Your task to perform on an android device: open app "Google Chrome" Image 0: 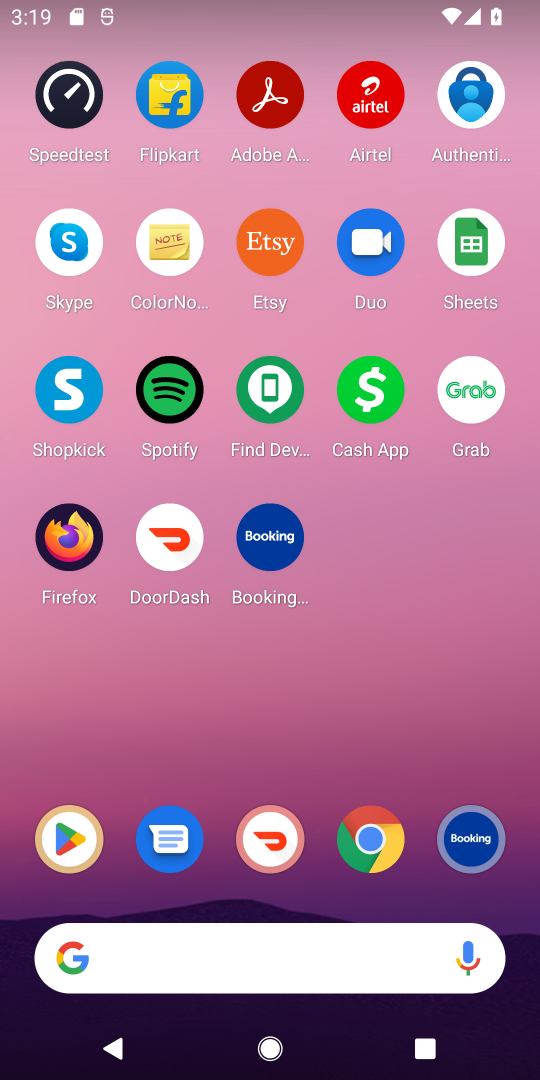
Step 0: click (337, 850)
Your task to perform on an android device: open app "Google Chrome" Image 1: 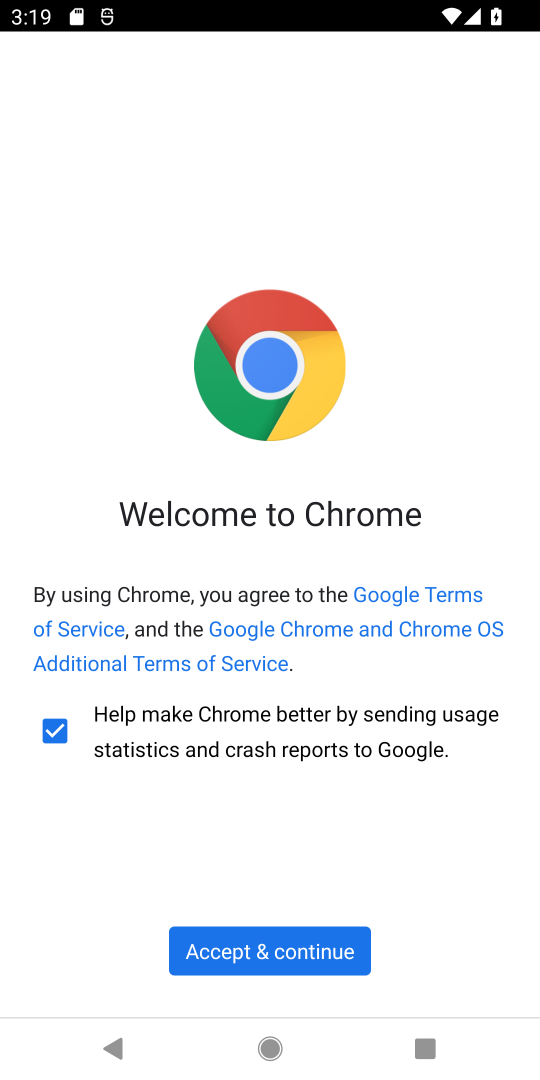
Step 1: task complete